Your task to perform on an android device: toggle wifi Image 0: 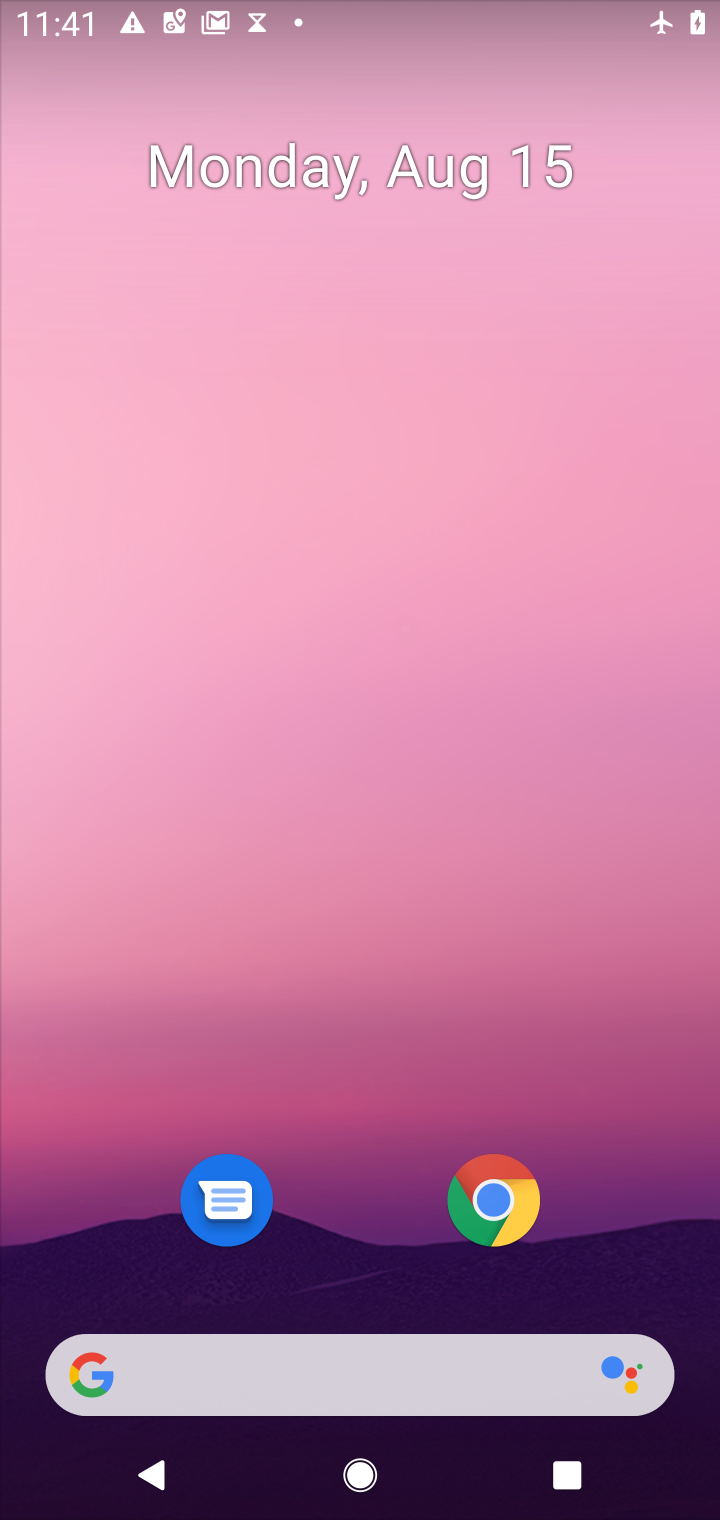
Step 0: drag from (359, 915) to (359, 395)
Your task to perform on an android device: toggle wifi Image 1: 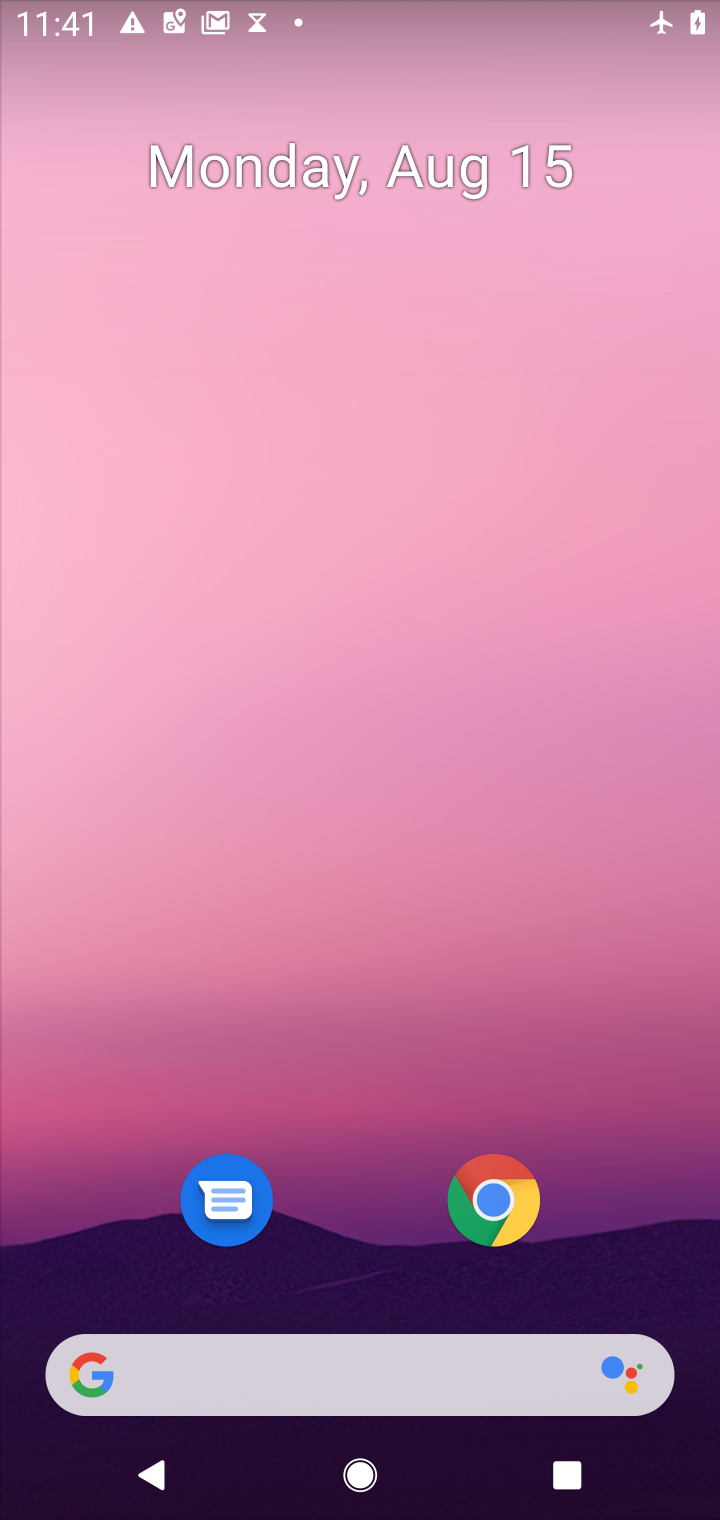
Step 1: drag from (363, 1253) to (325, 311)
Your task to perform on an android device: toggle wifi Image 2: 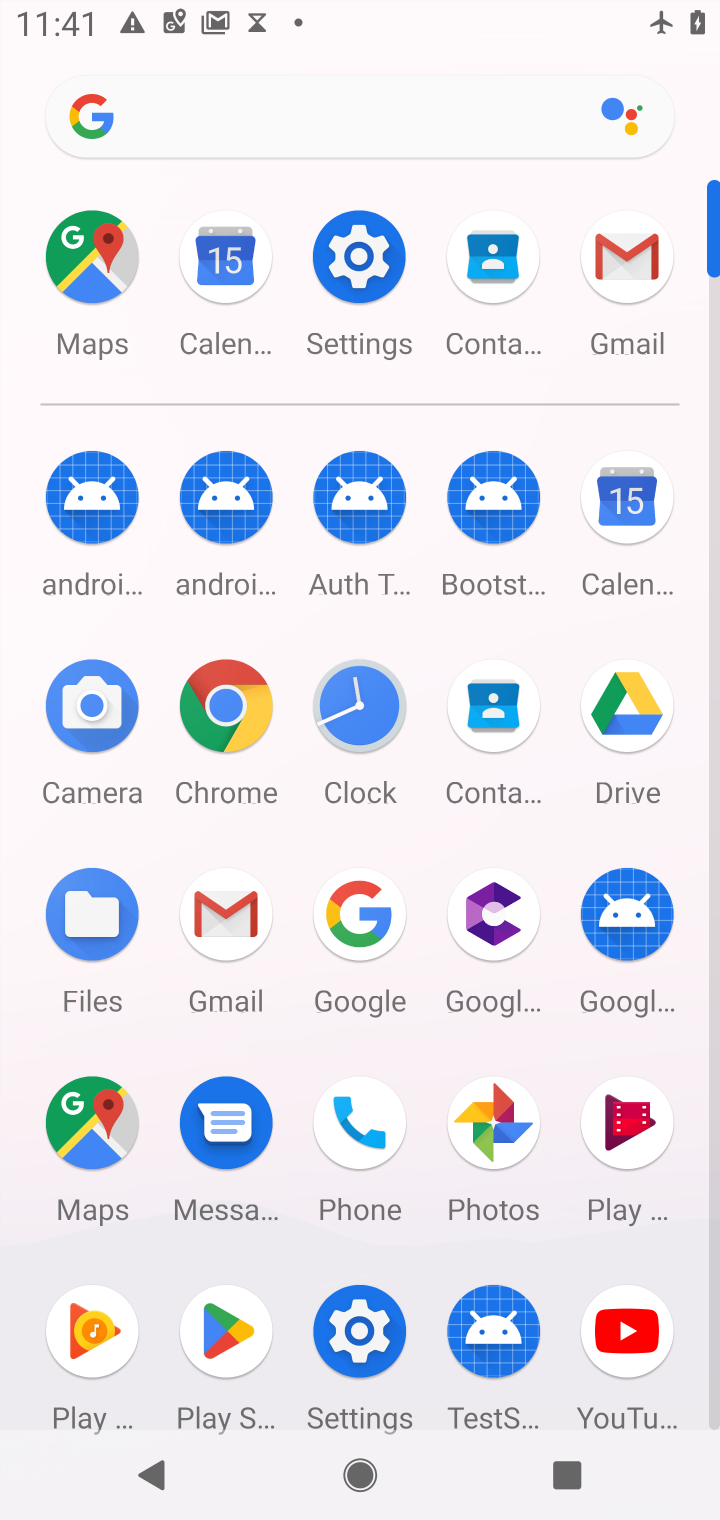
Step 2: click (334, 274)
Your task to perform on an android device: toggle wifi Image 3: 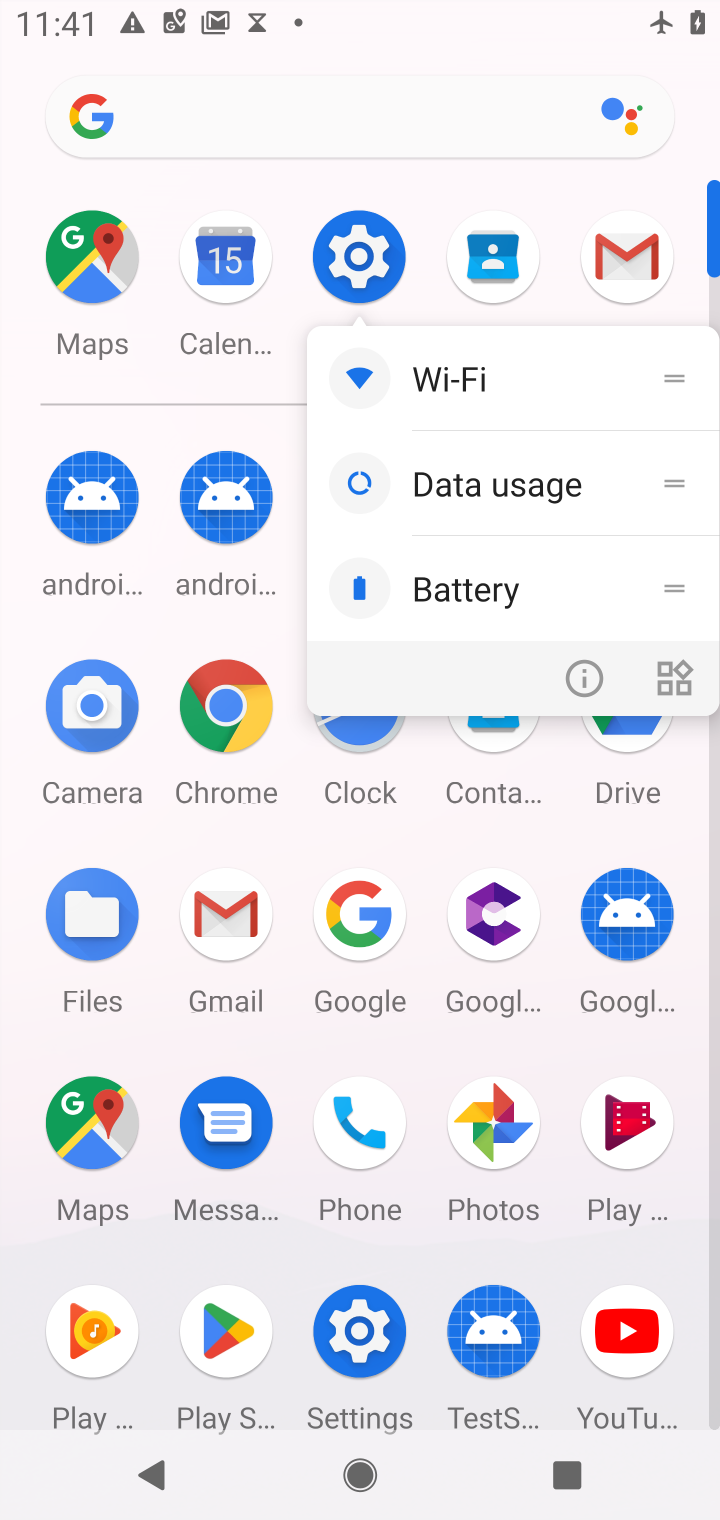
Step 3: click (356, 235)
Your task to perform on an android device: toggle wifi Image 4: 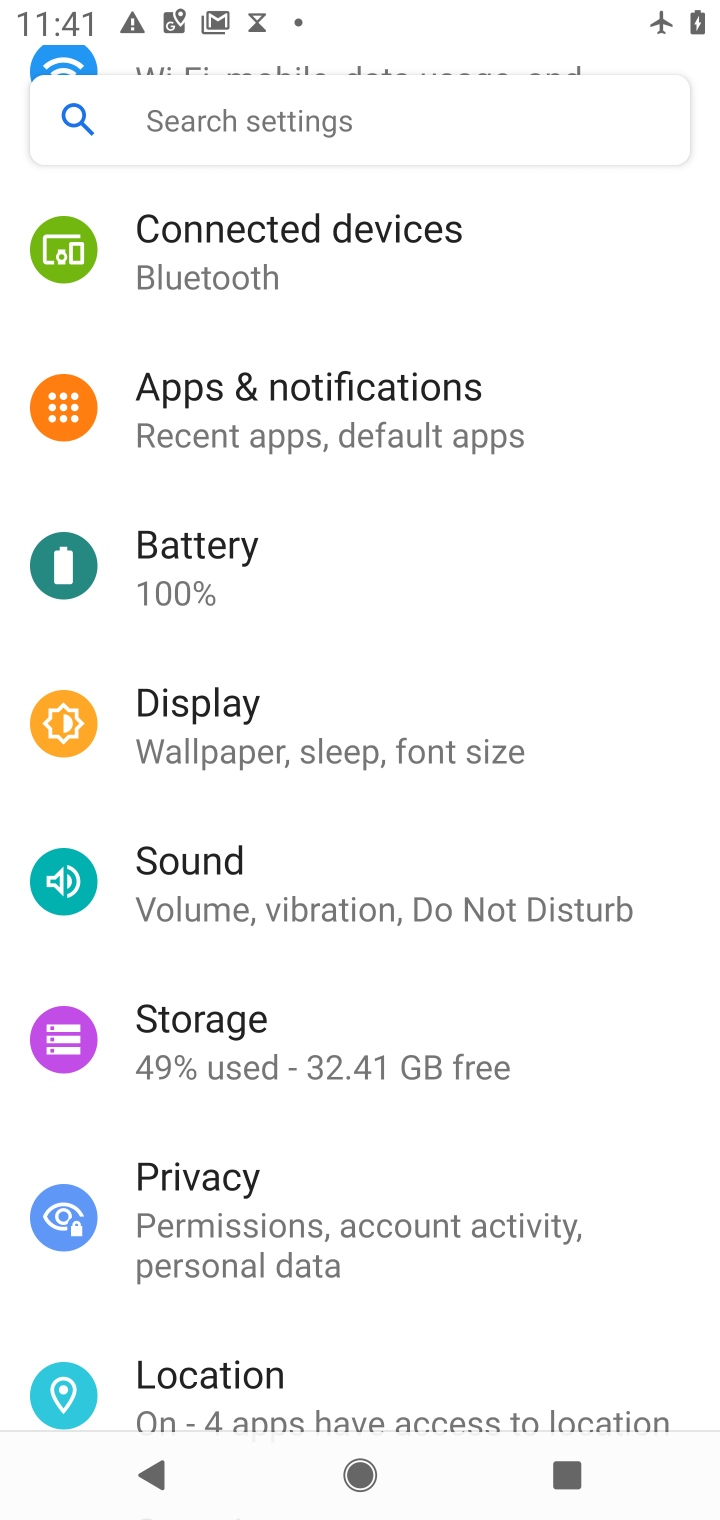
Step 4: drag from (414, 377) to (398, 1096)
Your task to perform on an android device: toggle wifi Image 5: 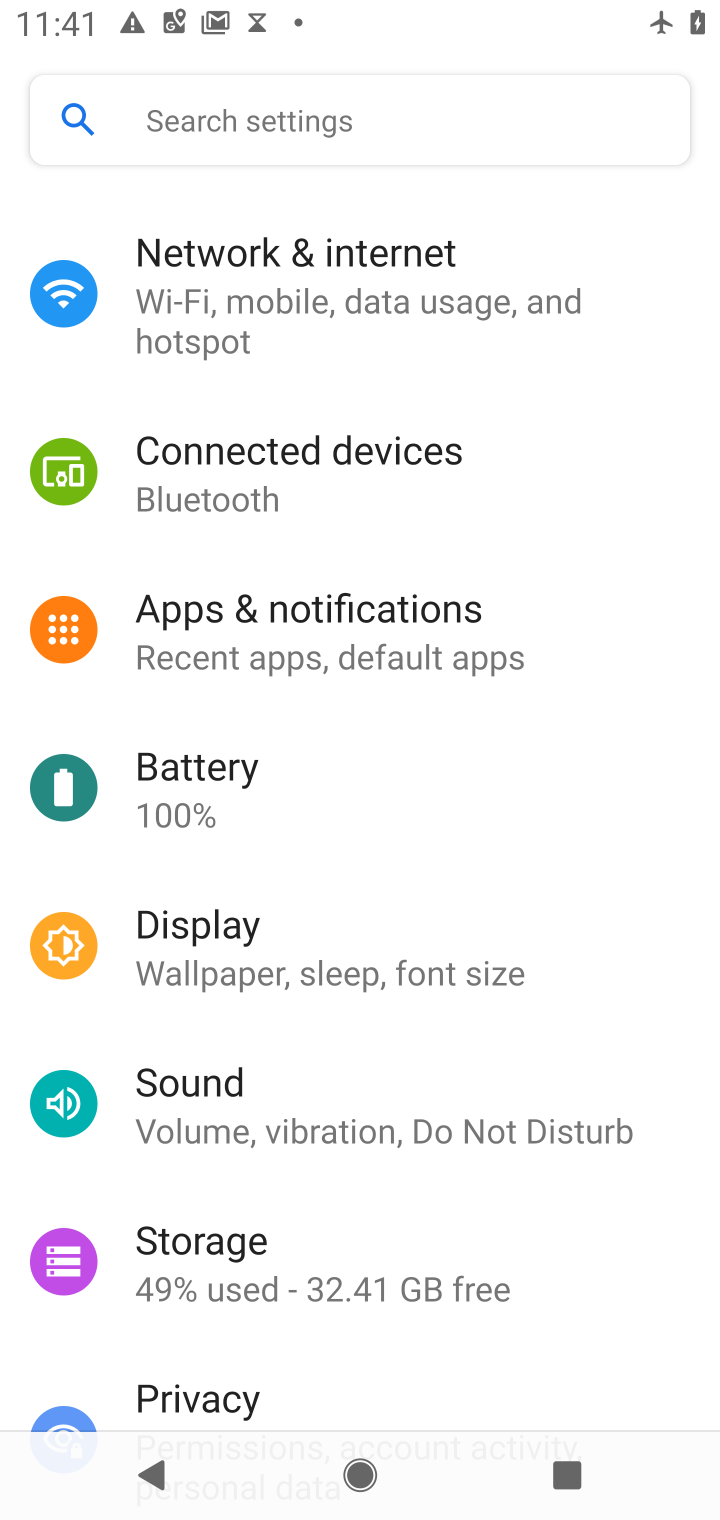
Step 5: click (292, 262)
Your task to perform on an android device: toggle wifi Image 6: 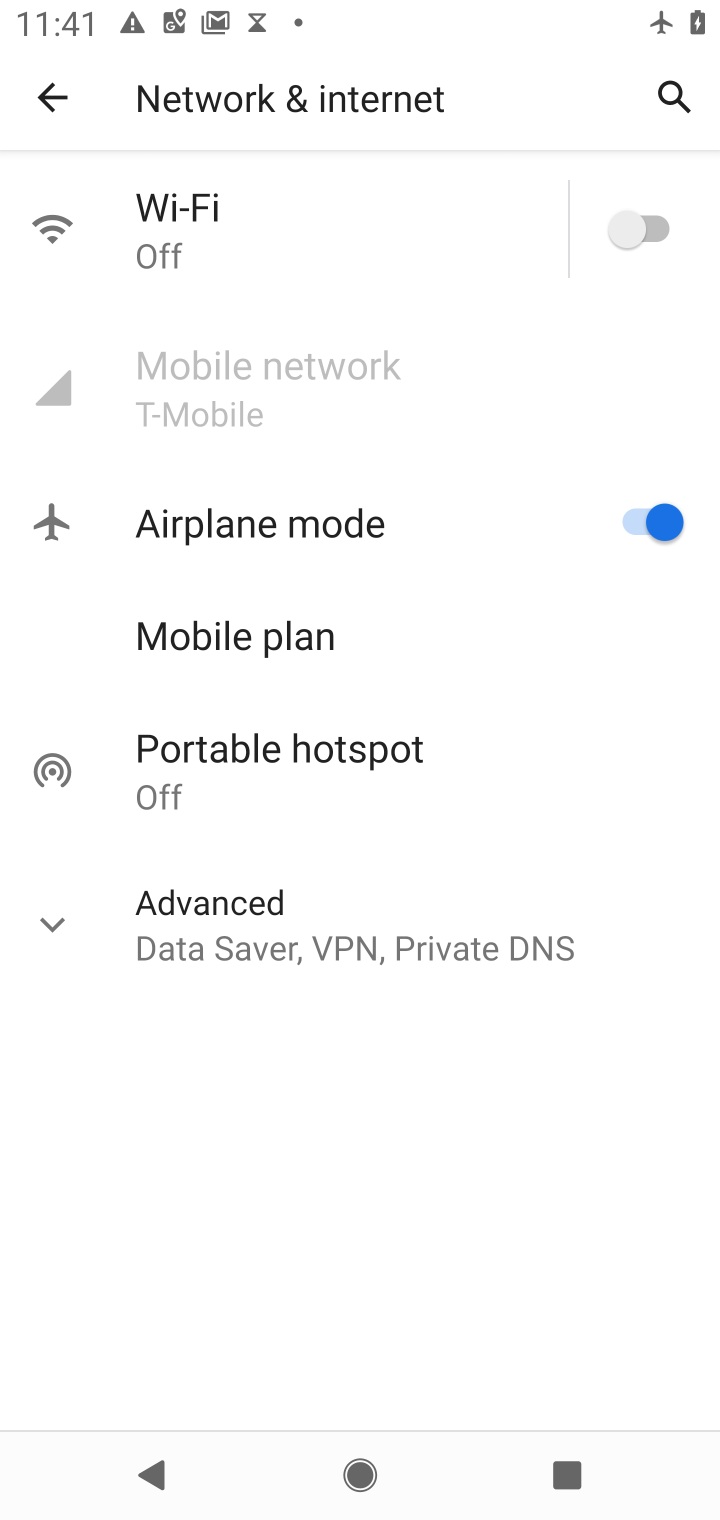
Step 6: click (660, 225)
Your task to perform on an android device: toggle wifi Image 7: 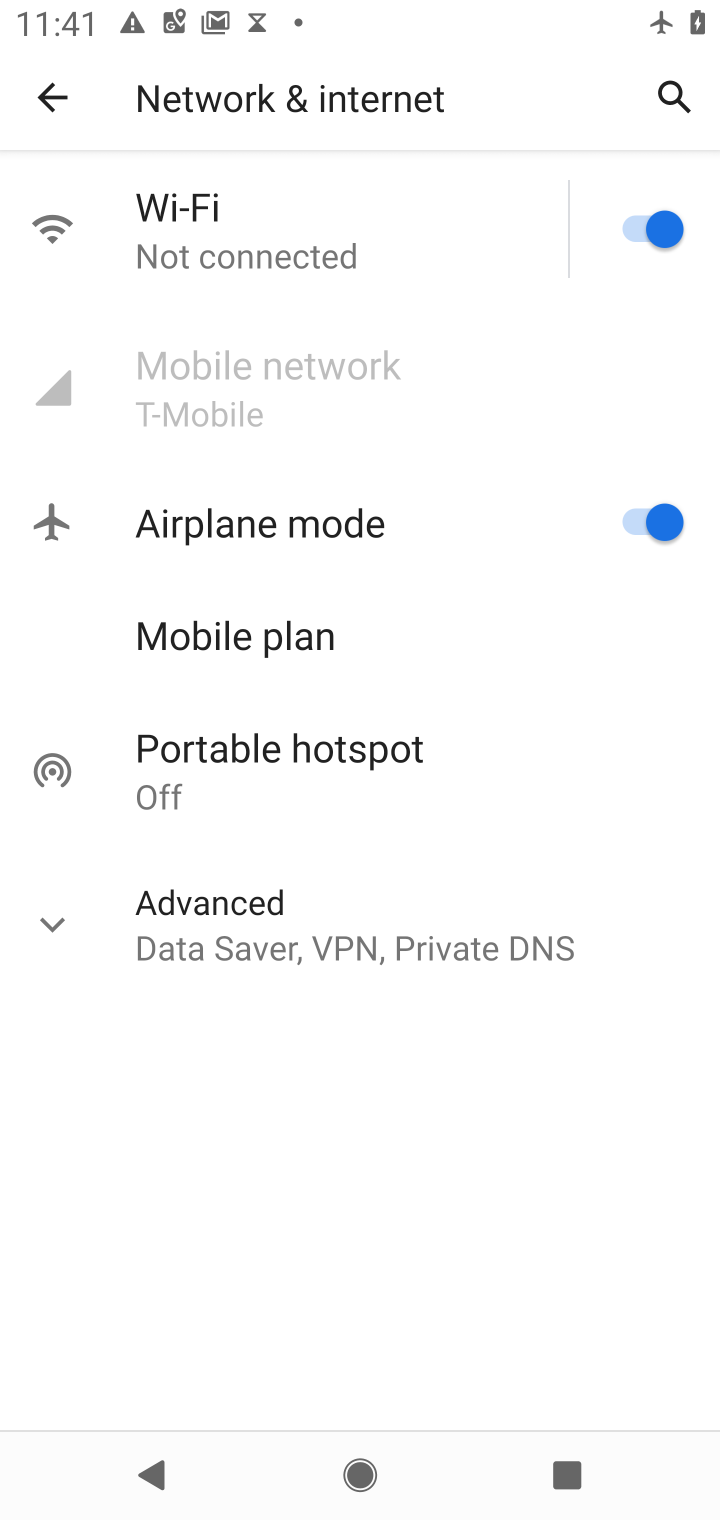
Step 7: task complete